Your task to perform on an android device: empty trash in google photos Image 0: 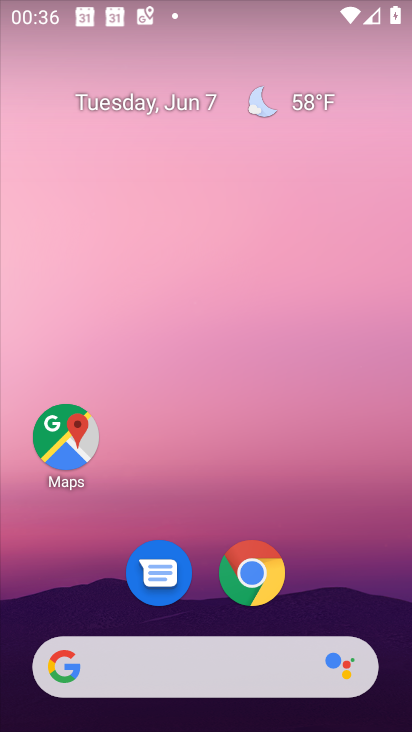
Step 0: press home button
Your task to perform on an android device: empty trash in google photos Image 1: 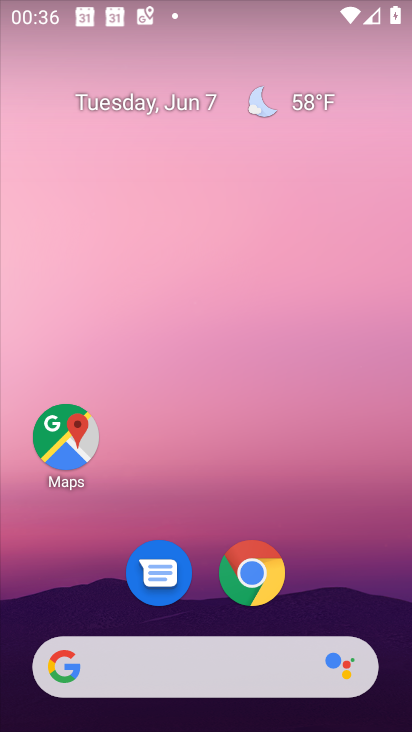
Step 1: drag from (371, 564) to (310, 107)
Your task to perform on an android device: empty trash in google photos Image 2: 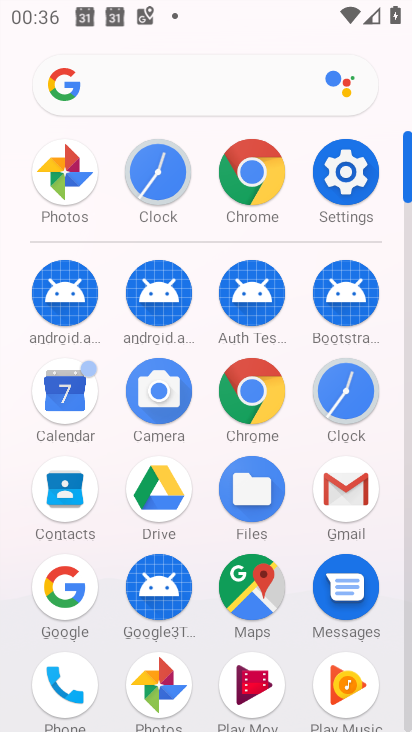
Step 2: click (191, 668)
Your task to perform on an android device: empty trash in google photos Image 3: 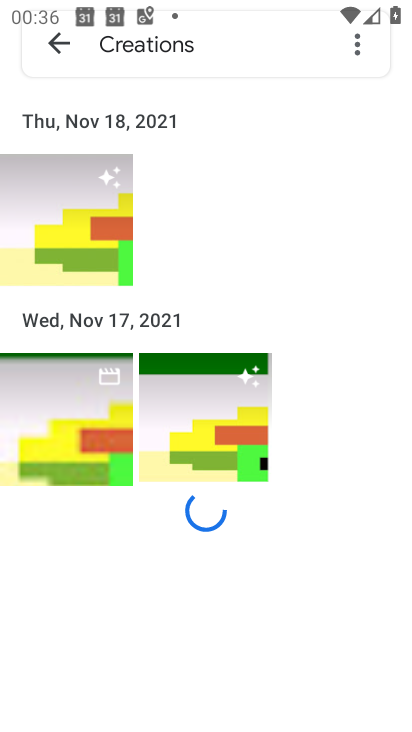
Step 3: click (55, 47)
Your task to perform on an android device: empty trash in google photos Image 4: 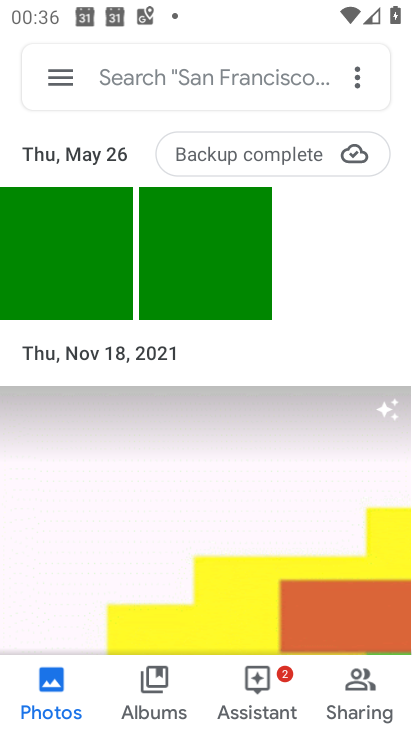
Step 4: click (64, 81)
Your task to perform on an android device: empty trash in google photos Image 5: 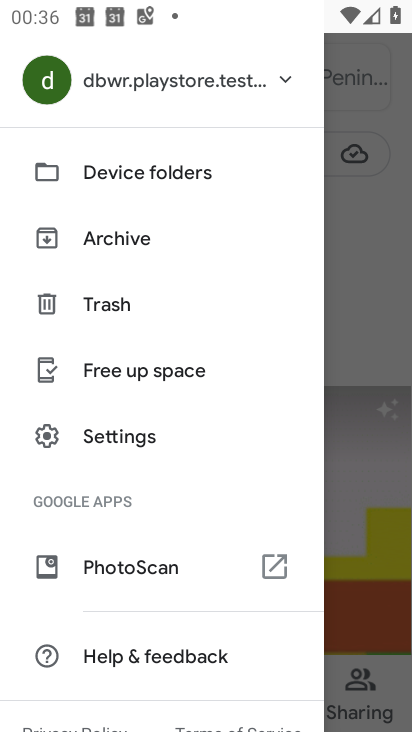
Step 5: click (119, 324)
Your task to perform on an android device: empty trash in google photos Image 6: 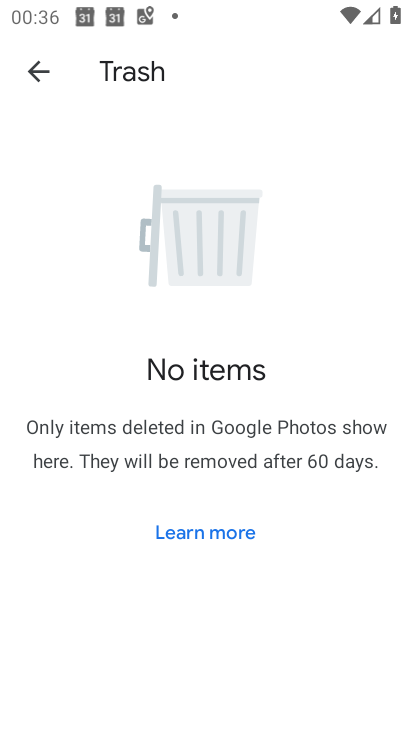
Step 6: task complete